Your task to perform on an android device: Go to Amazon Image 0: 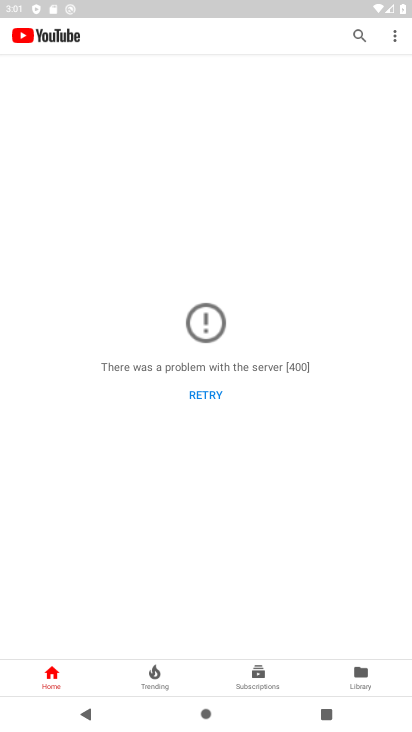
Step 0: press home button
Your task to perform on an android device: Go to Amazon Image 1: 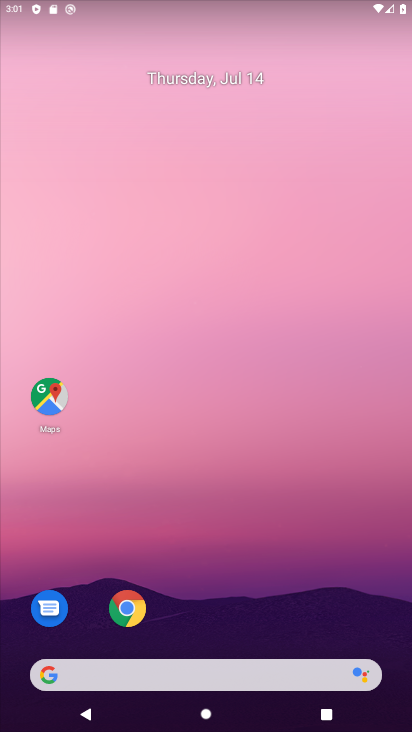
Step 1: click (132, 609)
Your task to perform on an android device: Go to Amazon Image 2: 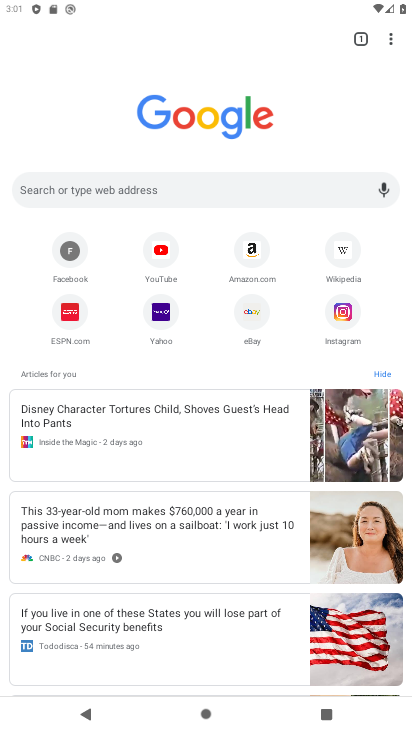
Step 2: click (241, 244)
Your task to perform on an android device: Go to Amazon Image 3: 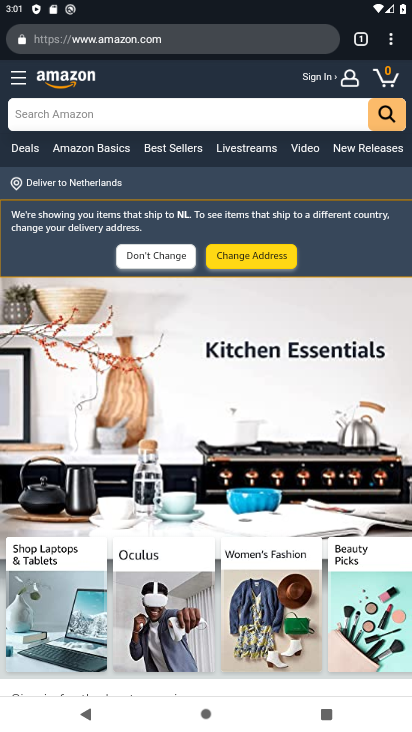
Step 3: task complete